Your task to perform on an android device: set the timer Image 0: 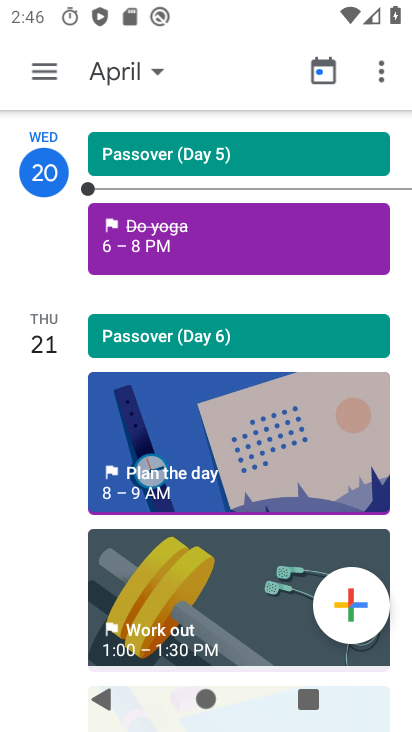
Step 0: press home button
Your task to perform on an android device: set the timer Image 1: 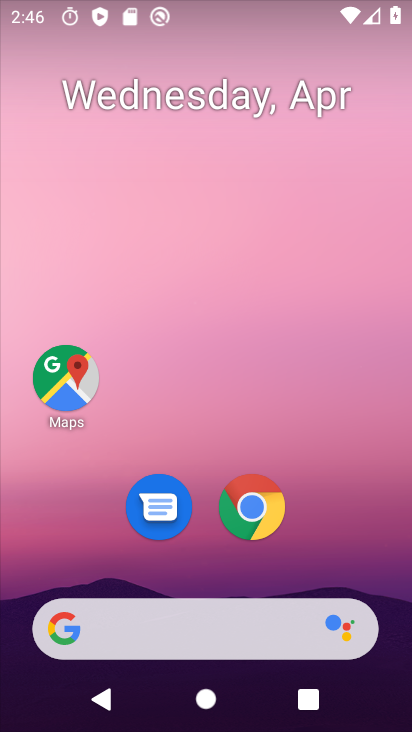
Step 1: drag from (305, 472) to (73, 107)
Your task to perform on an android device: set the timer Image 2: 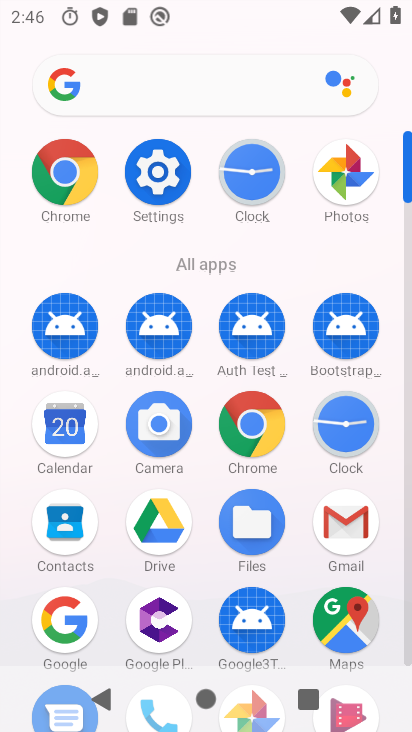
Step 2: click (248, 188)
Your task to perform on an android device: set the timer Image 3: 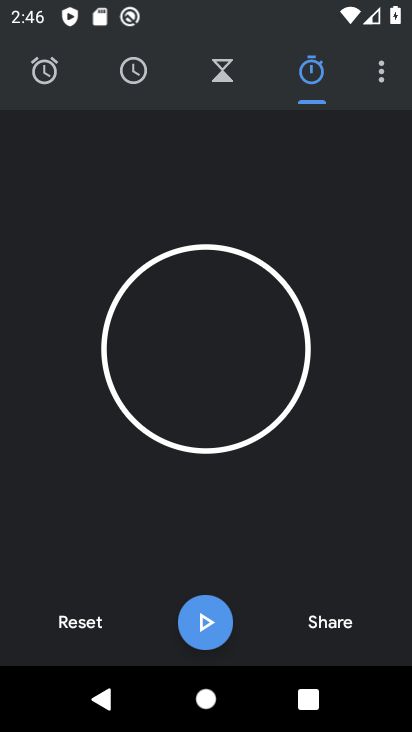
Step 3: click (225, 79)
Your task to perform on an android device: set the timer Image 4: 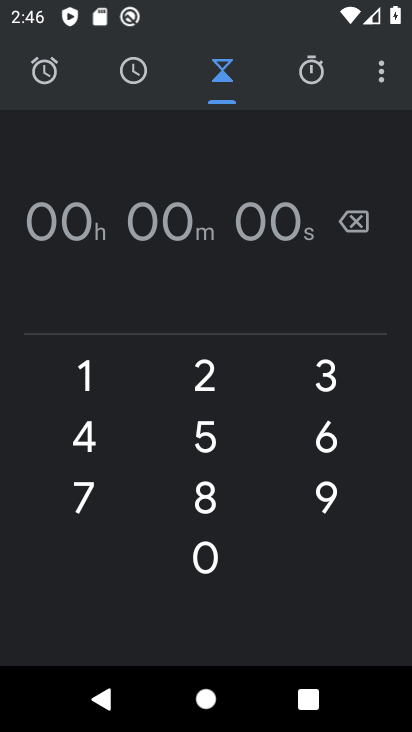
Step 4: click (207, 445)
Your task to perform on an android device: set the timer Image 5: 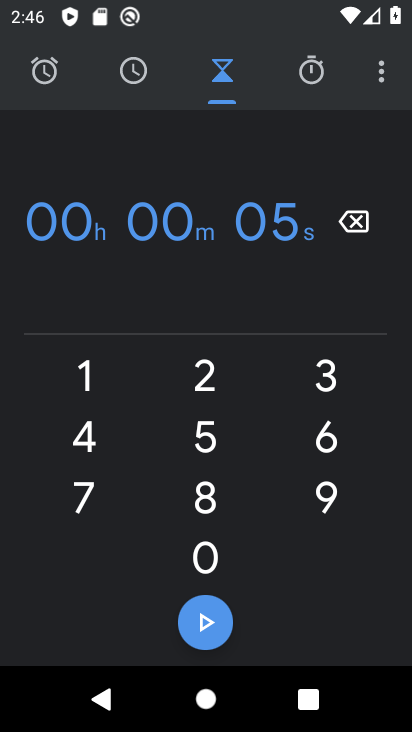
Step 5: click (206, 495)
Your task to perform on an android device: set the timer Image 6: 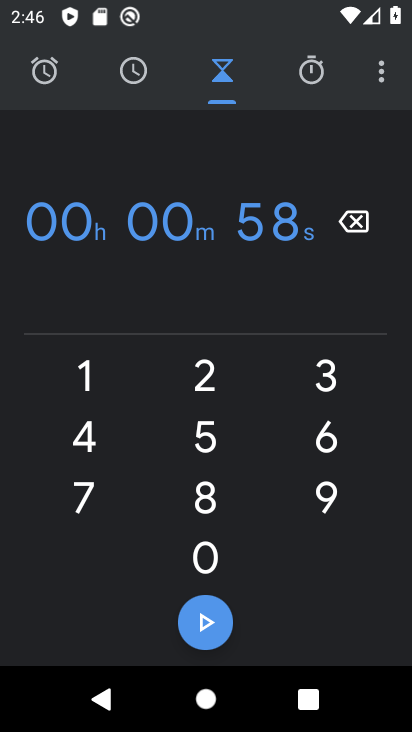
Step 6: click (94, 433)
Your task to perform on an android device: set the timer Image 7: 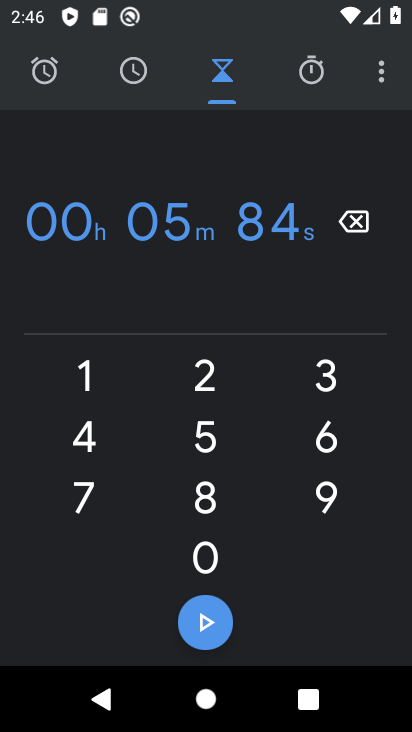
Step 7: click (198, 384)
Your task to perform on an android device: set the timer Image 8: 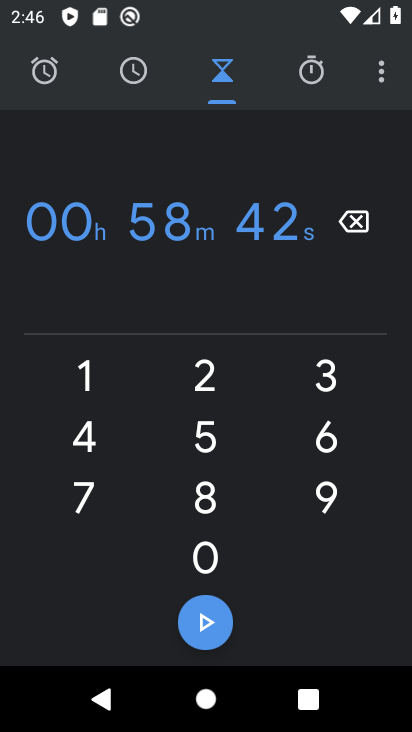
Step 8: click (200, 624)
Your task to perform on an android device: set the timer Image 9: 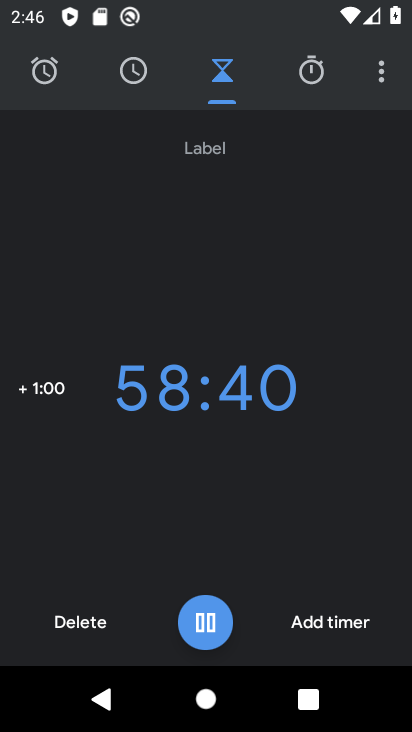
Step 9: click (327, 623)
Your task to perform on an android device: set the timer Image 10: 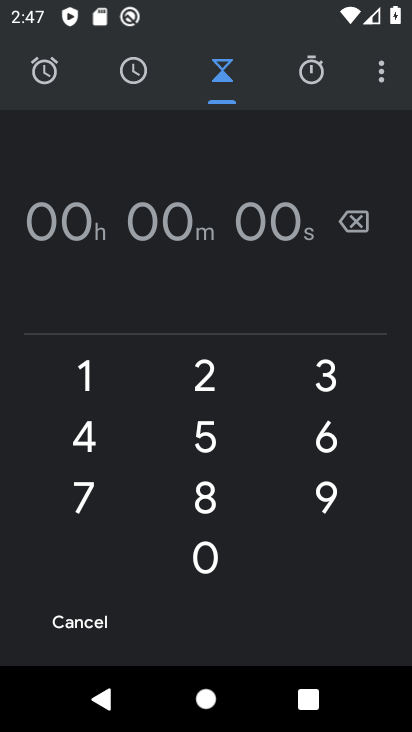
Step 10: task complete